Your task to perform on an android device: Open location settings Image 0: 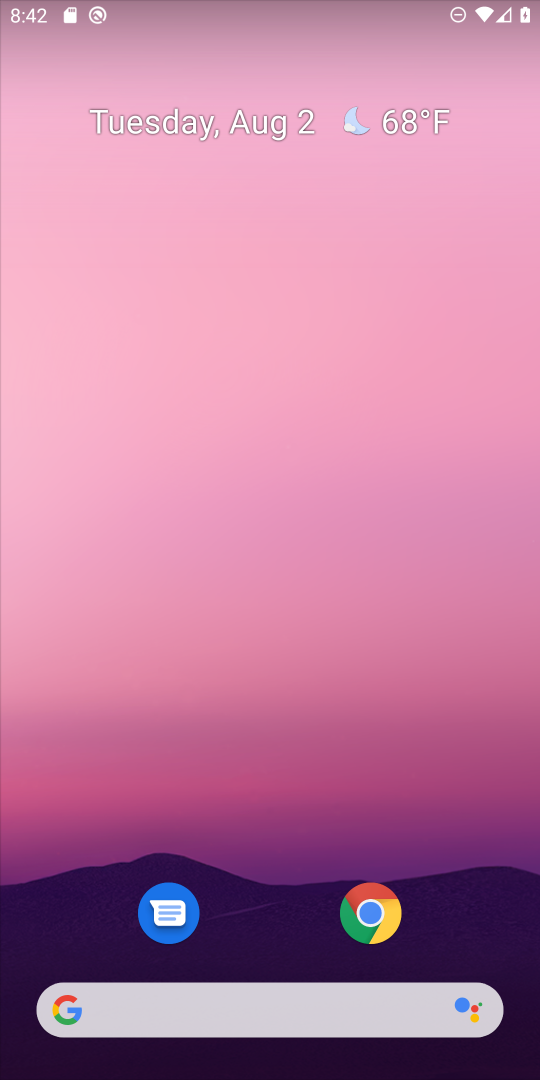
Step 0: drag from (275, 864) to (309, 331)
Your task to perform on an android device: Open location settings Image 1: 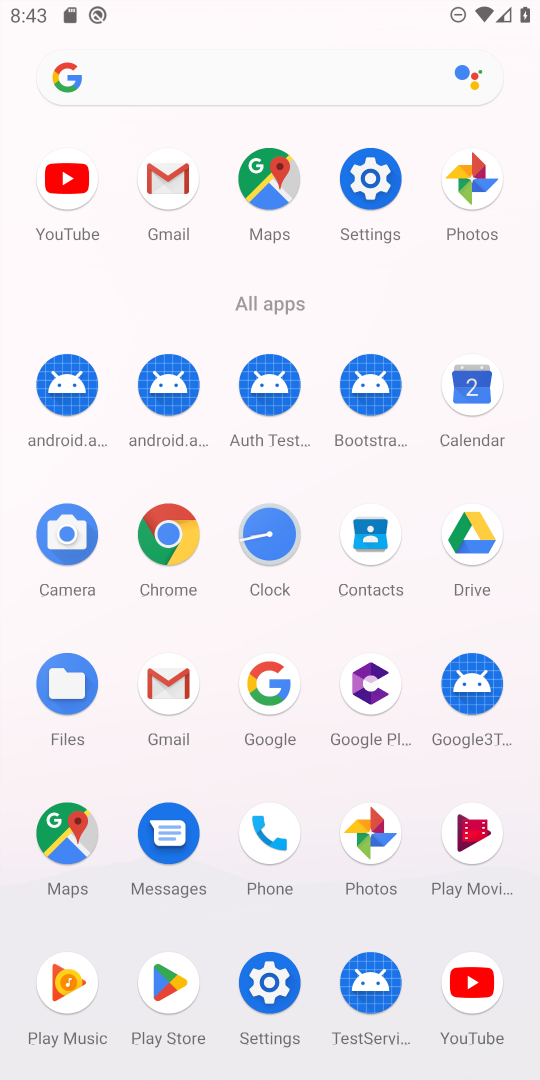
Step 1: click (272, 990)
Your task to perform on an android device: Open location settings Image 2: 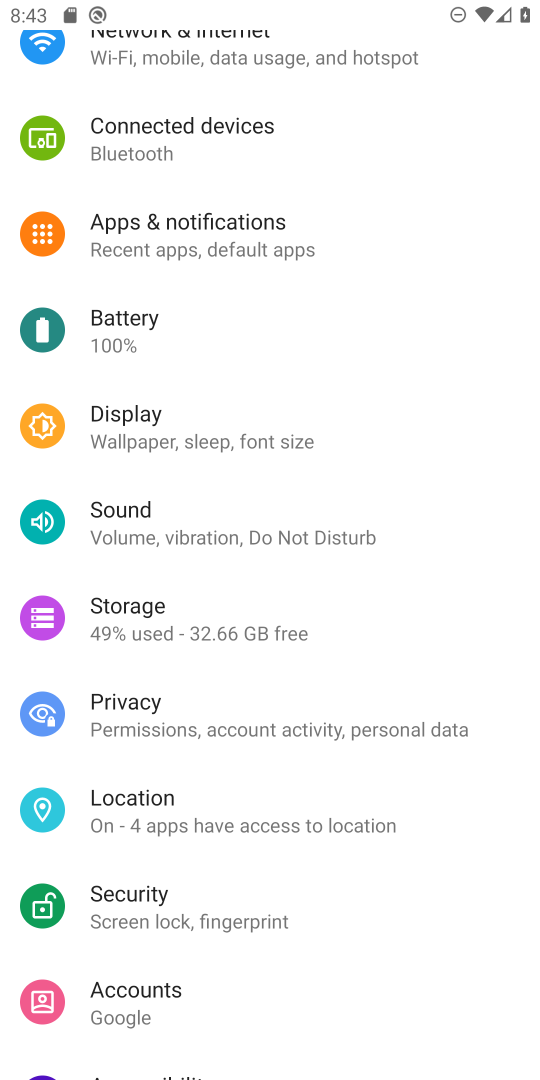
Step 2: click (126, 799)
Your task to perform on an android device: Open location settings Image 3: 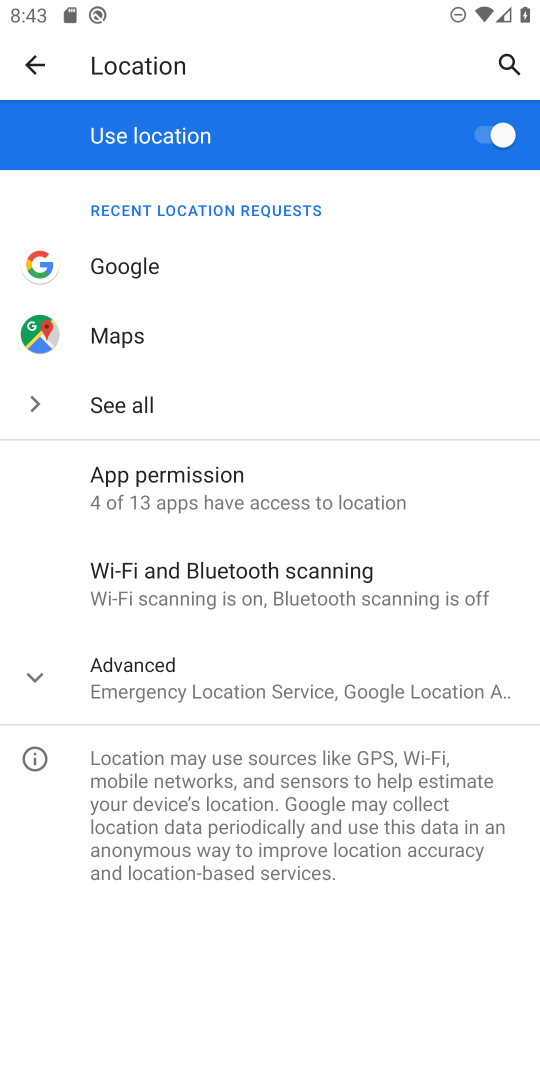
Step 3: task complete